Your task to perform on an android device: change notification settings in the gmail app Image 0: 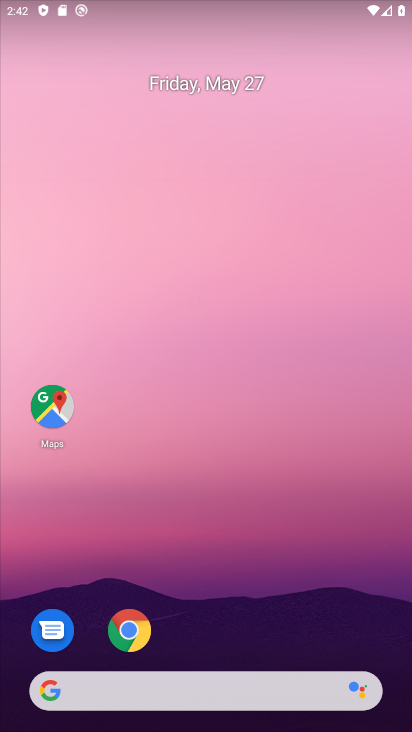
Step 0: drag from (194, 664) to (173, 115)
Your task to perform on an android device: change notification settings in the gmail app Image 1: 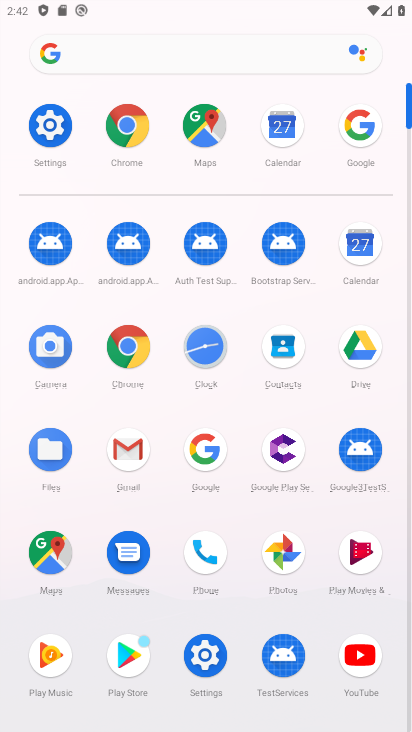
Step 1: click (137, 463)
Your task to perform on an android device: change notification settings in the gmail app Image 2: 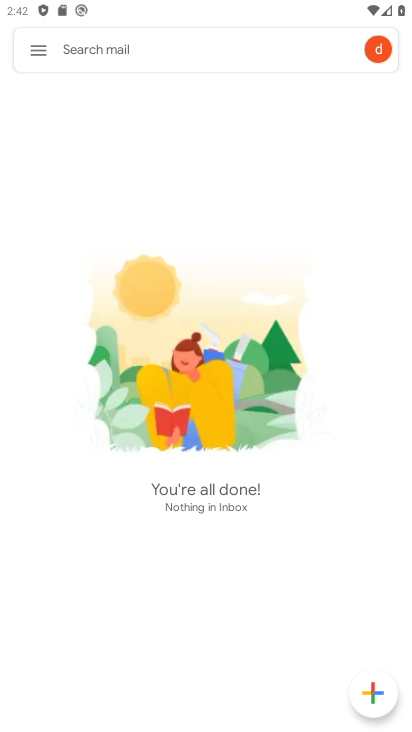
Step 2: click (31, 49)
Your task to perform on an android device: change notification settings in the gmail app Image 3: 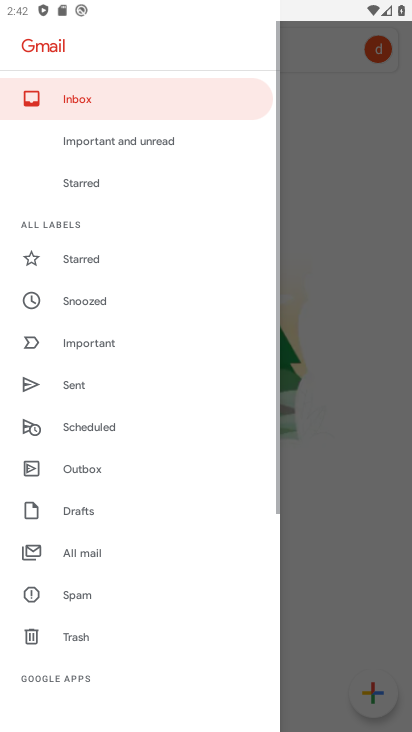
Step 3: drag from (101, 566) to (78, 115)
Your task to perform on an android device: change notification settings in the gmail app Image 4: 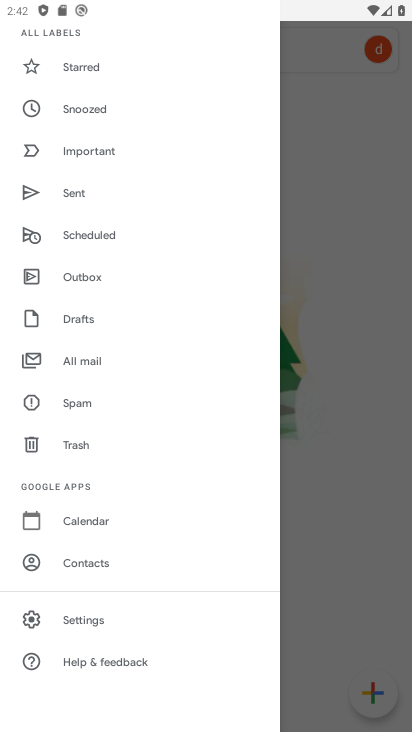
Step 4: click (110, 614)
Your task to perform on an android device: change notification settings in the gmail app Image 5: 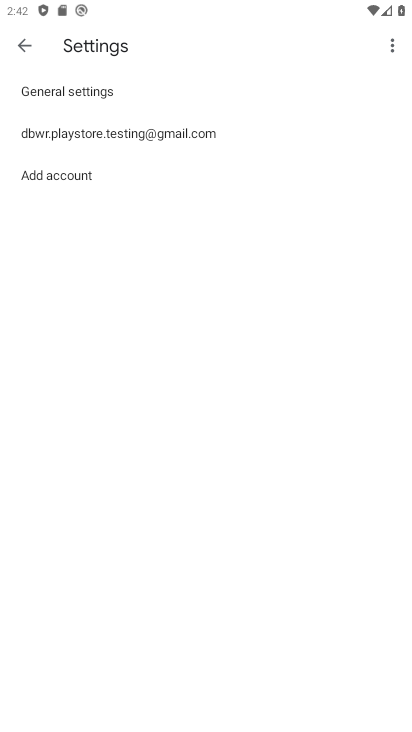
Step 5: click (60, 126)
Your task to perform on an android device: change notification settings in the gmail app Image 6: 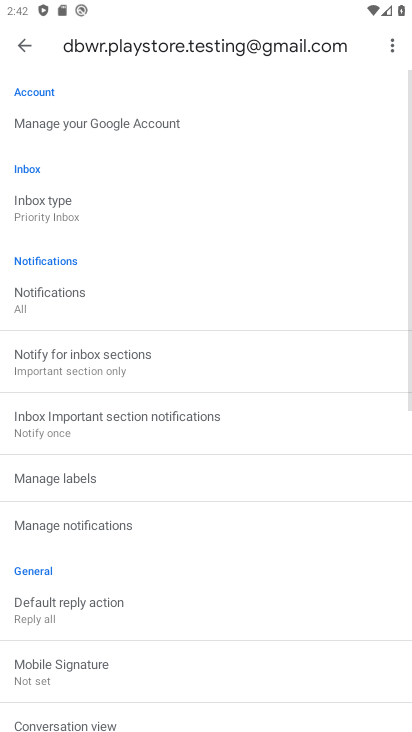
Step 6: click (11, 37)
Your task to perform on an android device: change notification settings in the gmail app Image 7: 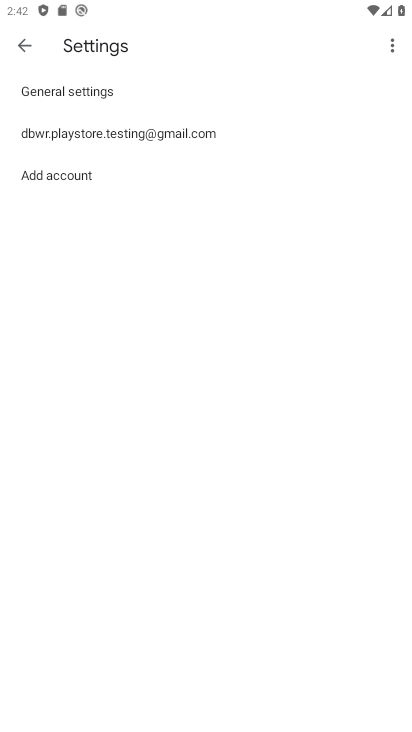
Step 7: click (33, 78)
Your task to perform on an android device: change notification settings in the gmail app Image 8: 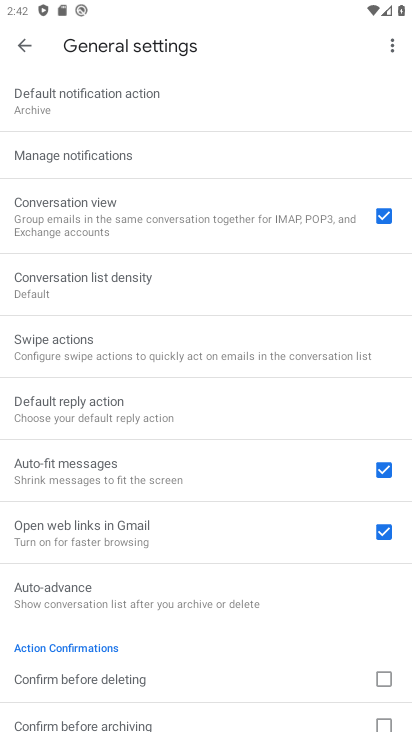
Step 8: click (98, 163)
Your task to perform on an android device: change notification settings in the gmail app Image 9: 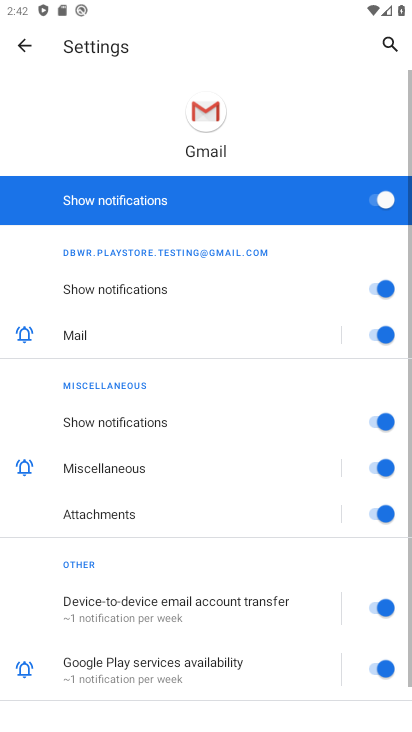
Step 9: click (383, 204)
Your task to perform on an android device: change notification settings in the gmail app Image 10: 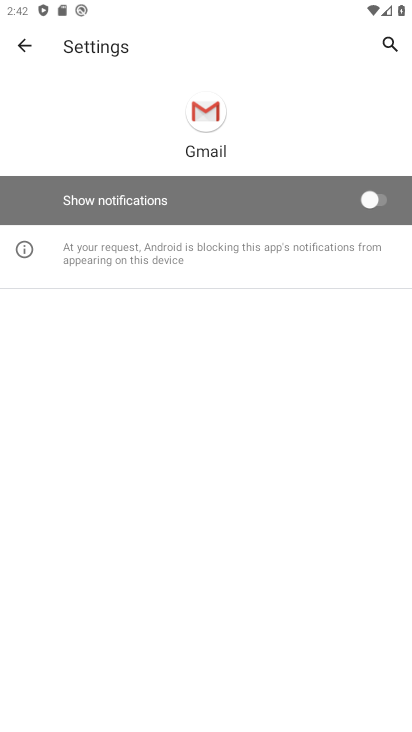
Step 10: task complete